Your task to perform on an android device: See recent photos Image 0: 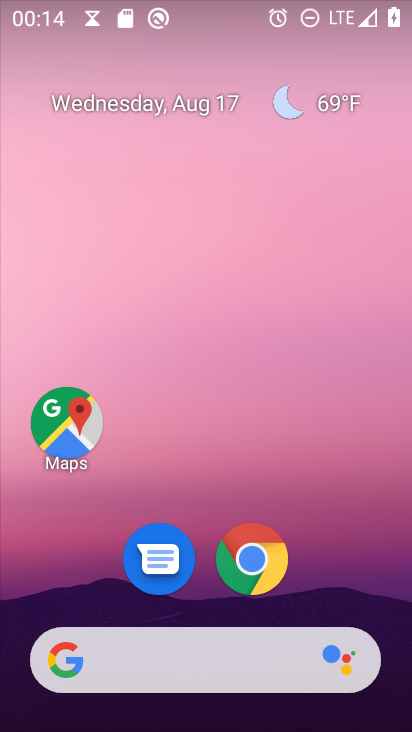
Step 0: drag from (182, 665) to (213, 216)
Your task to perform on an android device: See recent photos Image 1: 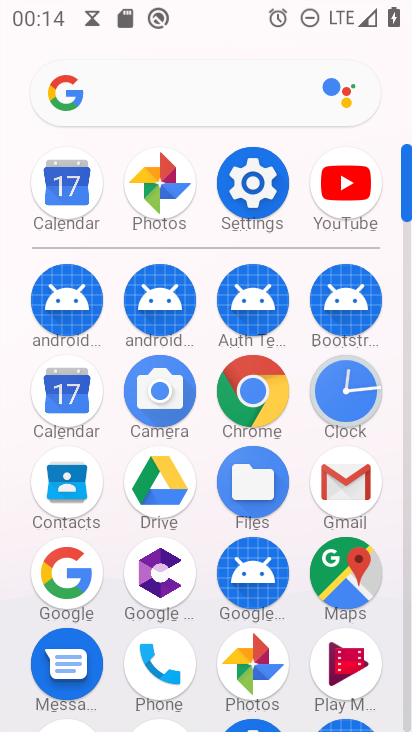
Step 1: click (61, 572)
Your task to perform on an android device: See recent photos Image 2: 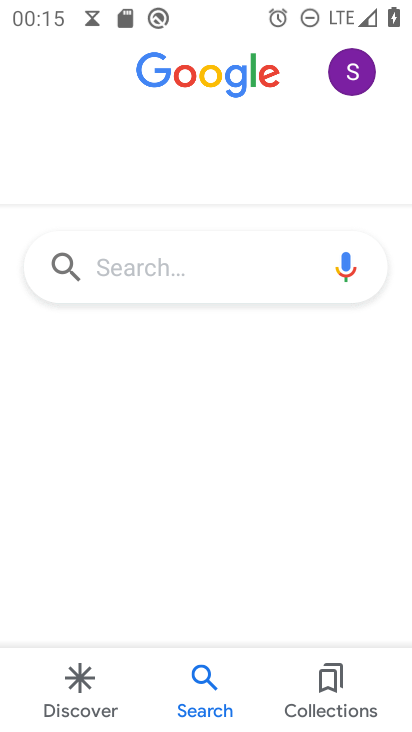
Step 2: click (194, 279)
Your task to perform on an android device: See recent photos Image 3: 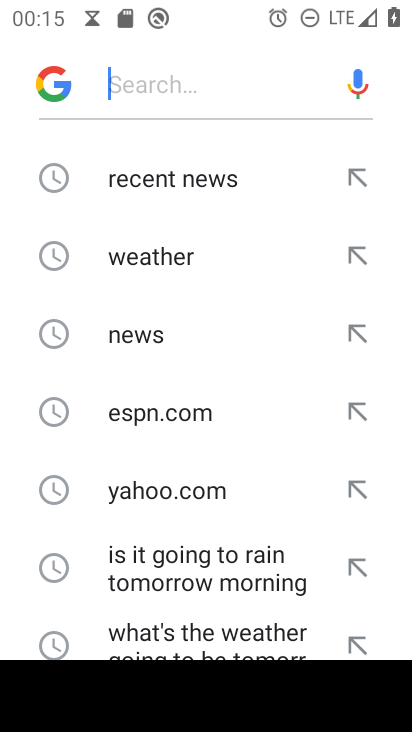
Step 3: press back button
Your task to perform on an android device: See recent photos Image 4: 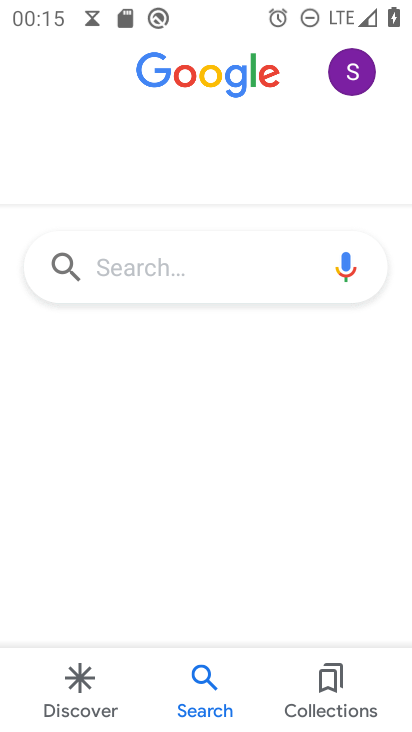
Step 4: press back button
Your task to perform on an android device: See recent photos Image 5: 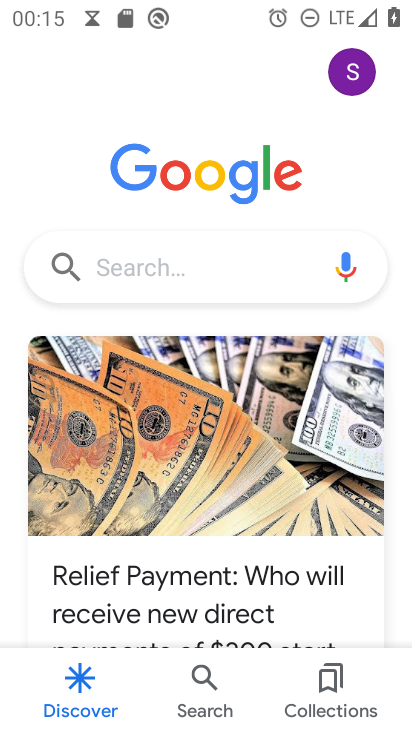
Step 5: press back button
Your task to perform on an android device: See recent photos Image 6: 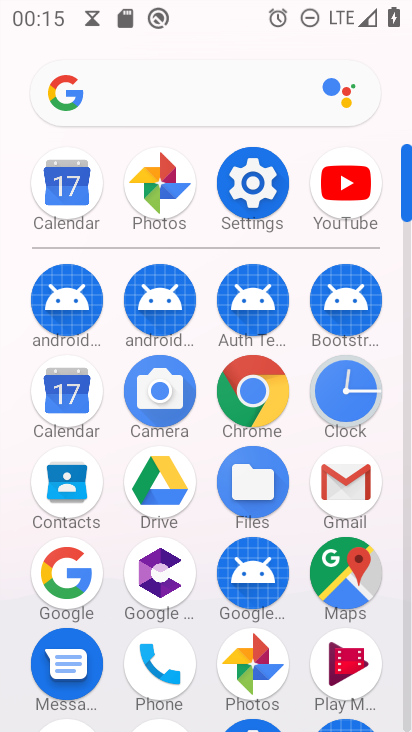
Step 6: click (162, 184)
Your task to perform on an android device: See recent photos Image 7: 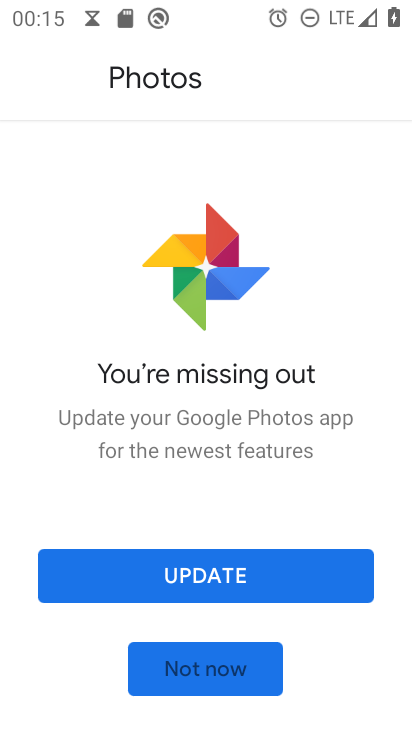
Step 7: click (214, 590)
Your task to perform on an android device: See recent photos Image 8: 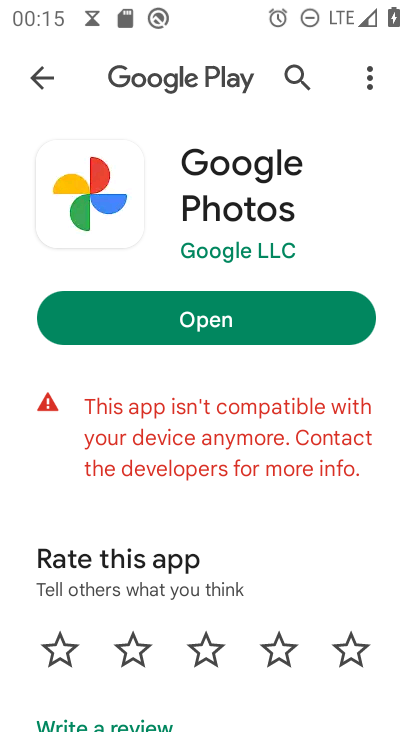
Step 8: click (241, 207)
Your task to perform on an android device: See recent photos Image 9: 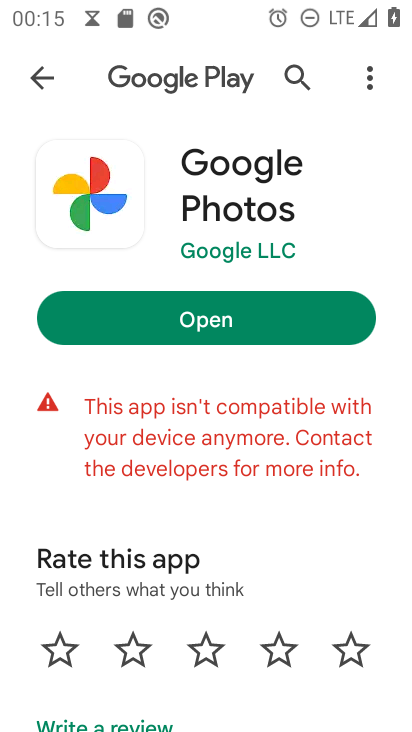
Step 9: task complete